Your task to perform on an android device: Go to battery settings Image 0: 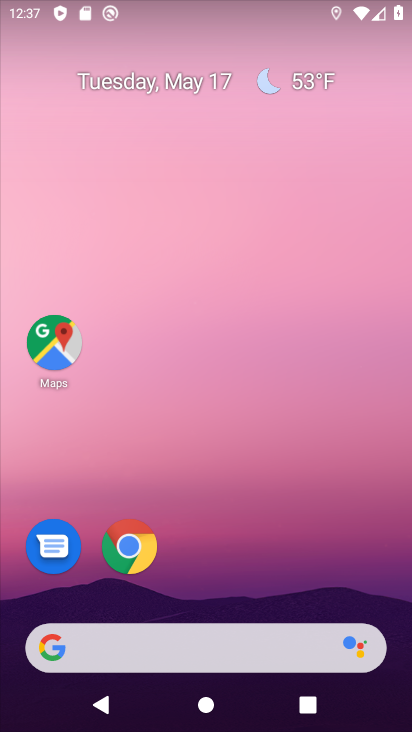
Step 0: drag from (225, 586) to (252, 230)
Your task to perform on an android device: Go to battery settings Image 1: 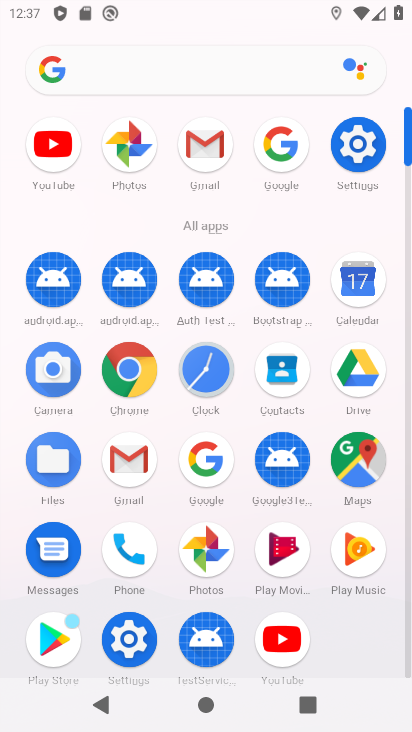
Step 1: click (343, 178)
Your task to perform on an android device: Go to battery settings Image 2: 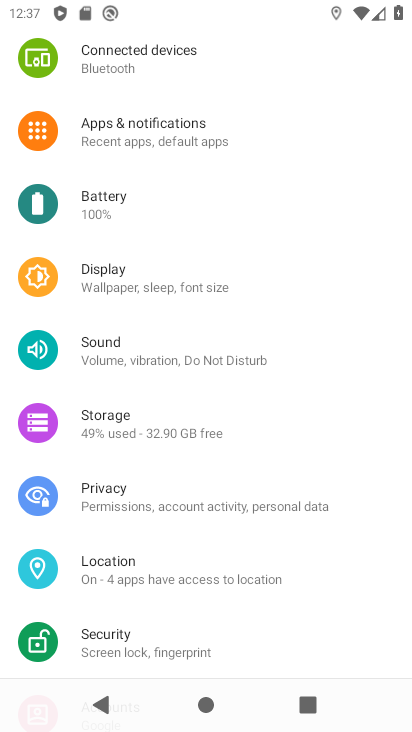
Step 2: click (106, 203)
Your task to perform on an android device: Go to battery settings Image 3: 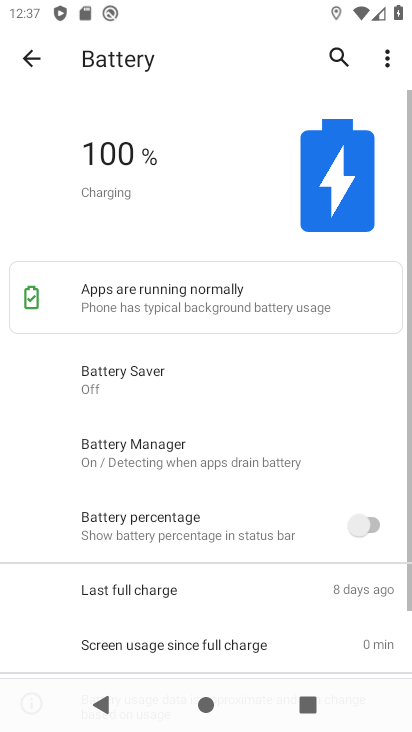
Step 3: task complete